Your task to perform on an android device: Open Chrome and go to the settings page Image 0: 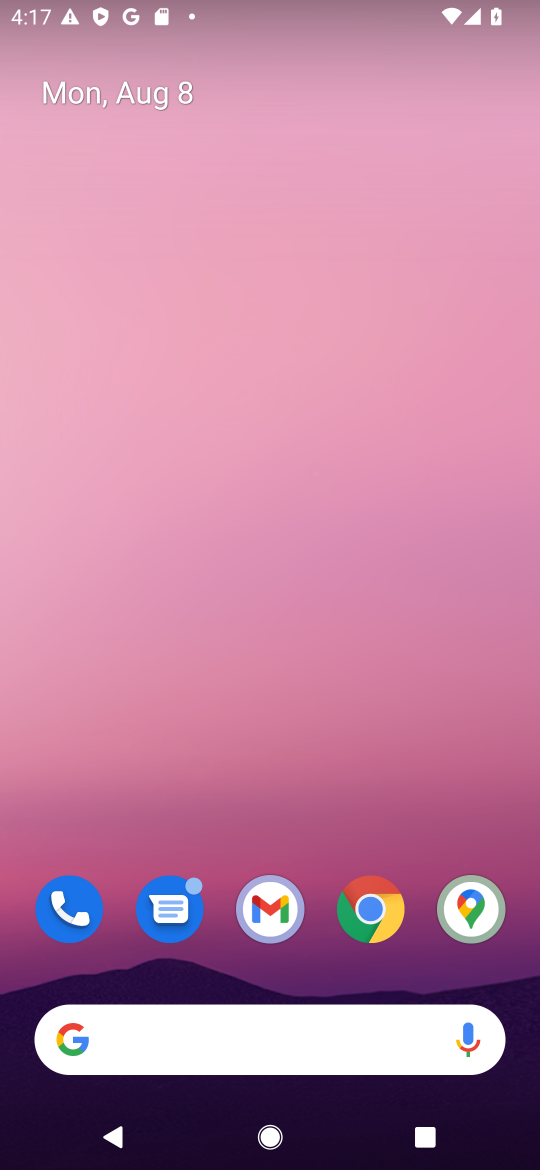
Step 0: click (368, 911)
Your task to perform on an android device: Open Chrome and go to the settings page Image 1: 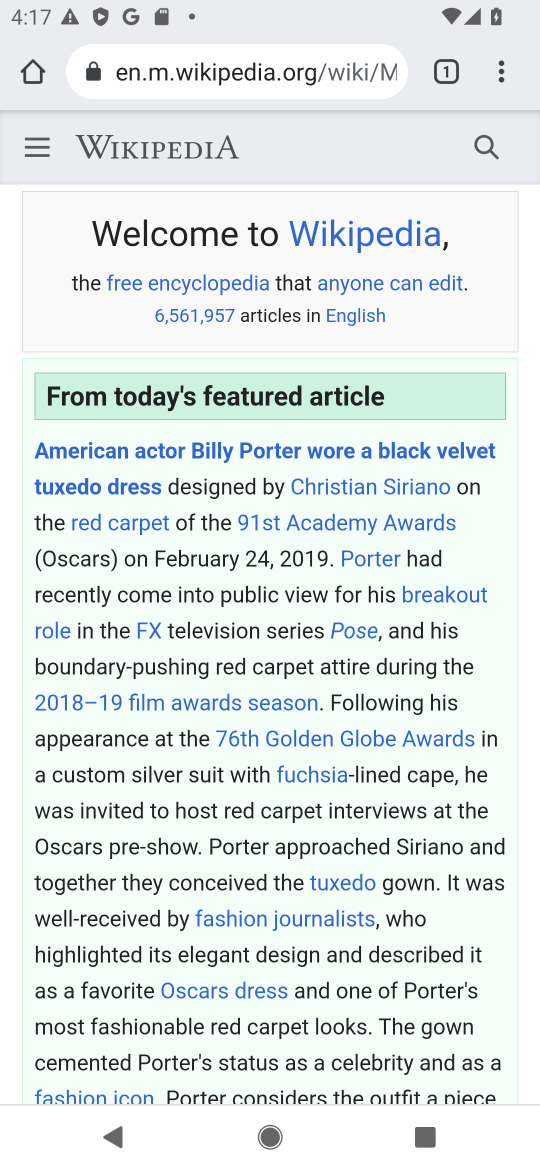
Step 1: task complete